Your task to perform on an android device: Turn on the flashlight Image 0: 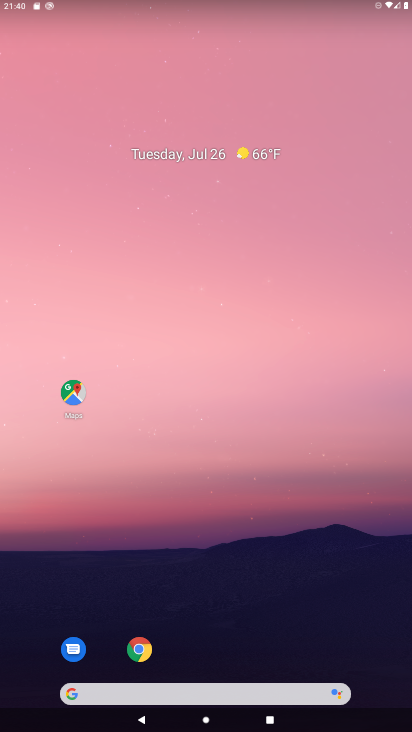
Step 0: drag from (188, 18) to (81, 626)
Your task to perform on an android device: Turn on the flashlight Image 1: 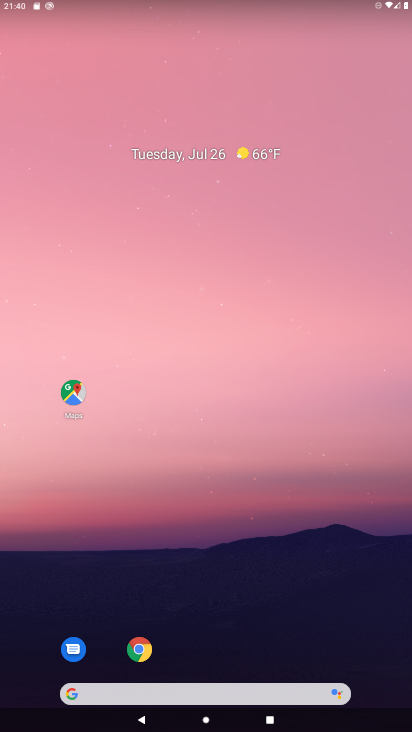
Step 1: task complete